Your task to perform on an android device: toggle pop-ups in chrome Image 0: 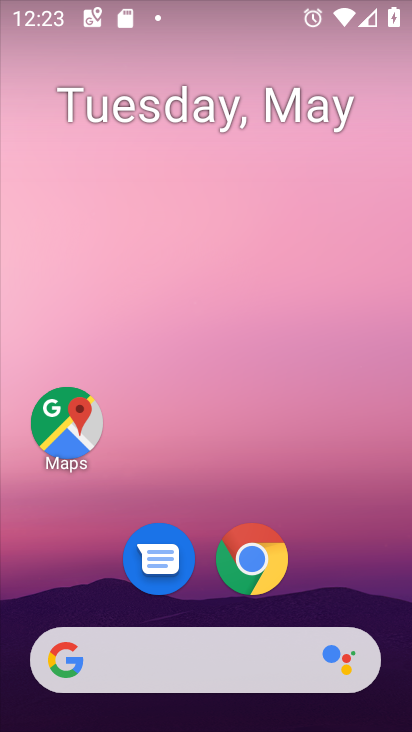
Step 0: click (280, 552)
Your task to perform on an android device: toggle pop-ups in chrome Image 1: 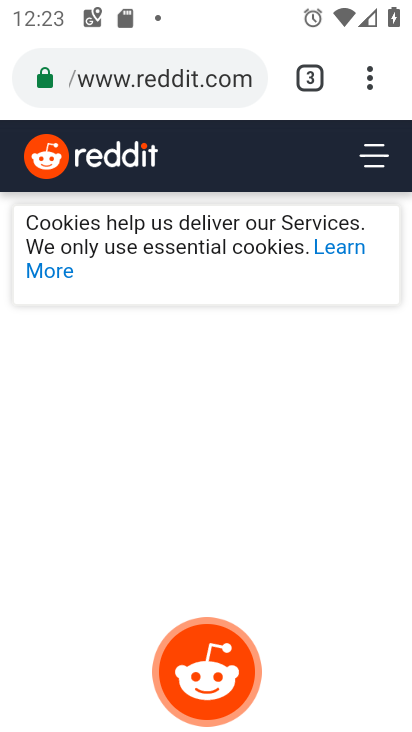
Step 1: drag from (370, 75) to (132, 618)
Your task to perform on an android device: toggle pop-ups in chrome Image 2: 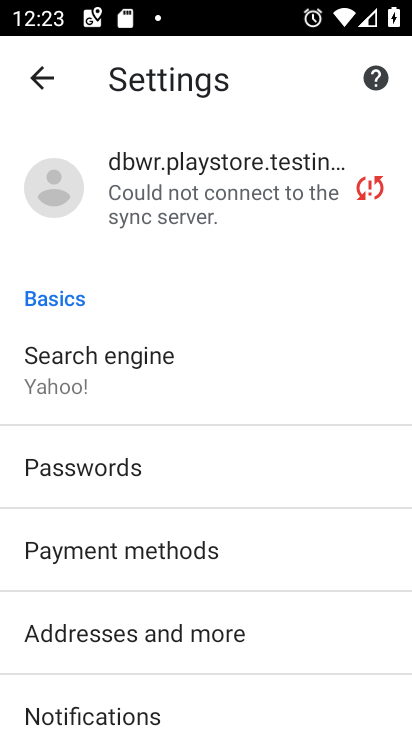
Step 2: drag from (197, 707) to (169, 318)
Your task to perform on an android device: toggle pop-ups in chrome Image 3: 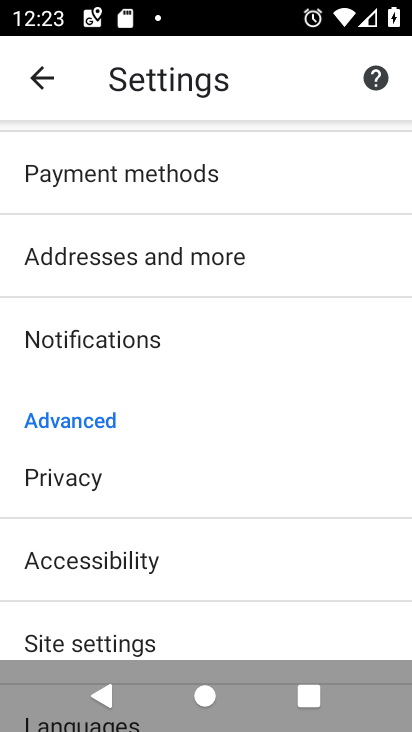
Step 3: drag from (182, 626) to (168, 312)
Your task to perform on an android device: toggle pop-ups in chrome Image 4: 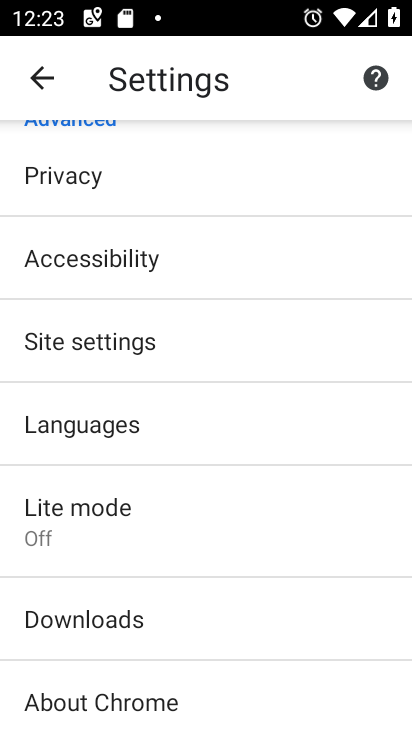
Step 4: click (167, 343)
Your task to perform on an android device: toggle pop-ups in chrome Image 5: 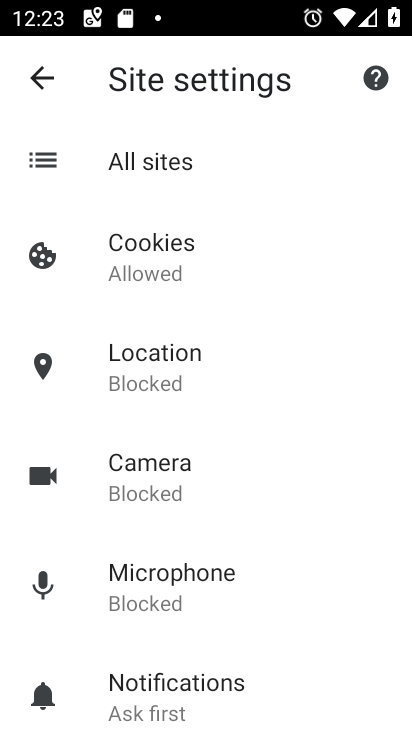
Step 5: drag from (202, 640) to (163, 261)
Your task to perform on an android device: toggle pop-ups in chrome Image 6: 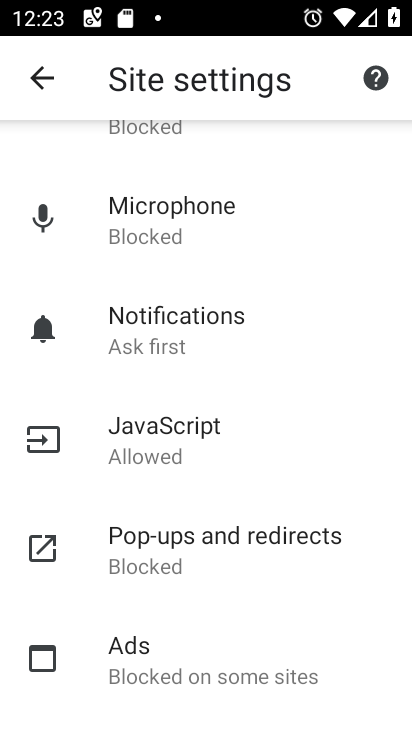
Step 6: click (181, 567)
Your task to perform on an android device: toggle pop-ups in chrome Image 7: 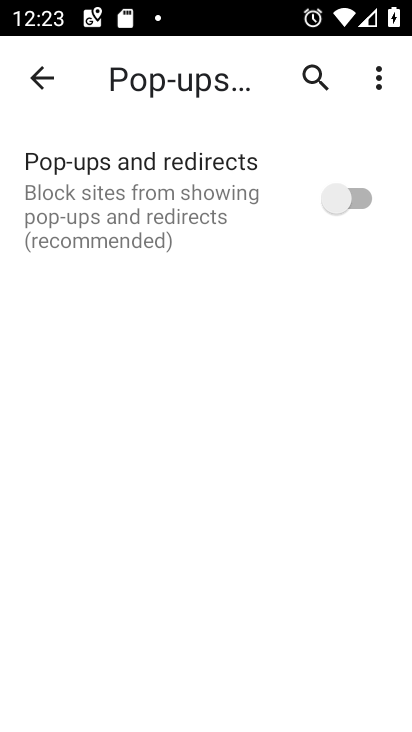
Step 7: click (349, 210)
Your task to perform on an android device: toggle pop-ups in chrome Image 8: 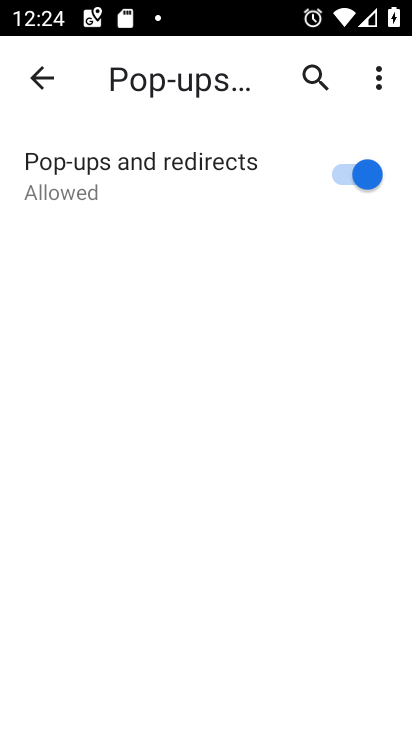
Step 8: task complete